Your task to perform on an android device: Open network settings Image 0: 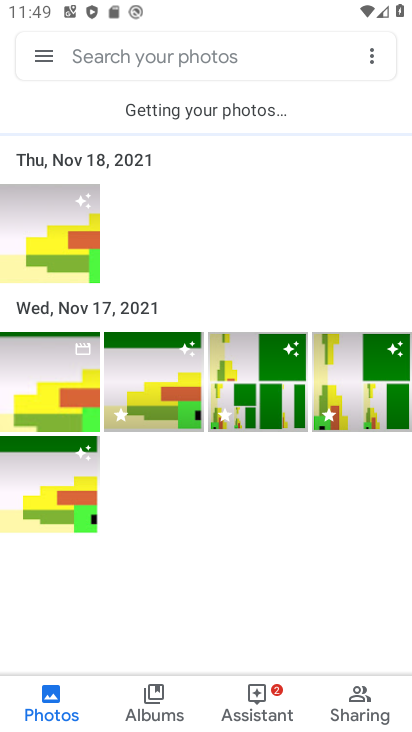
Step 0: press home button
Your task to perform on an android device: Open network settings Image 1: 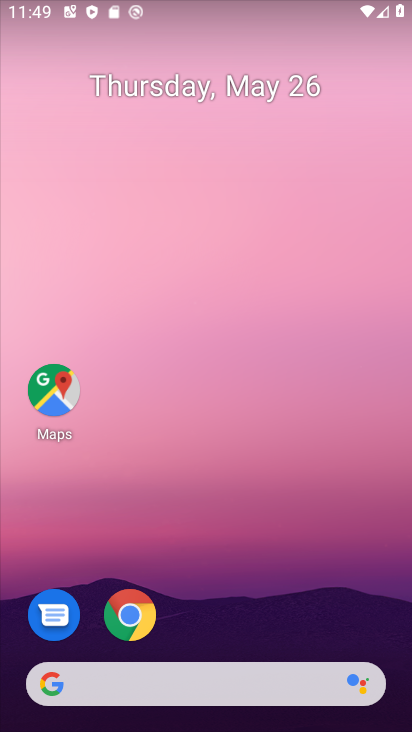
Step 1: drag from (230, 657) to (302, 174)
Your task to perform on an android device: Open network settings Image 2: 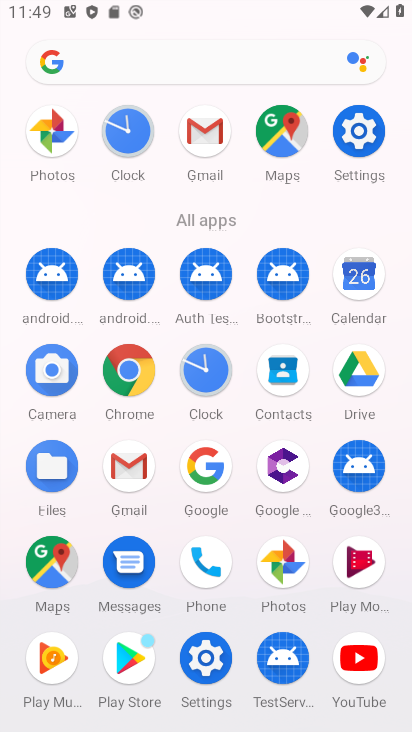
Step 2: click (215, 668)
Your task to perform on an android device: Open network settings Image 3: 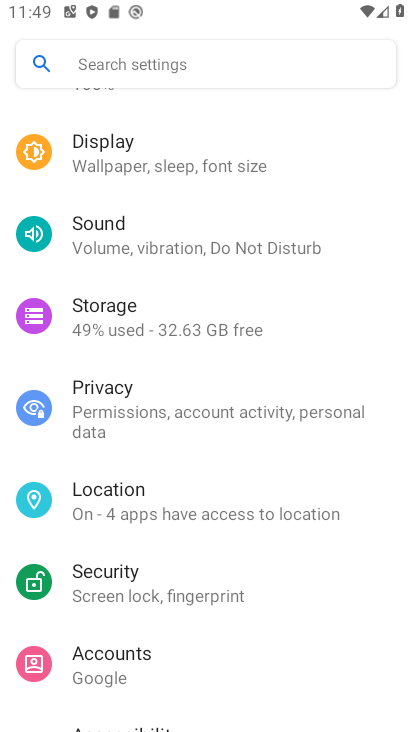
Step 3: drag from (223, 191) to (203, 588)
Your task to perform on an android device: Open network settings Image 4: 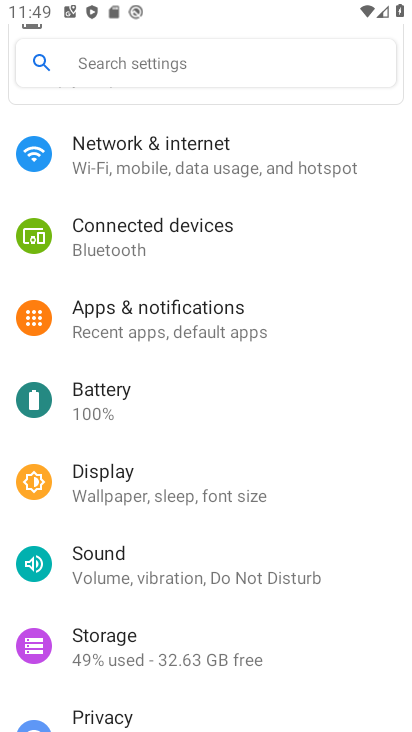
Step 4: click (239, 167)
Your task to perform on an android device: Open network settings Image 5: 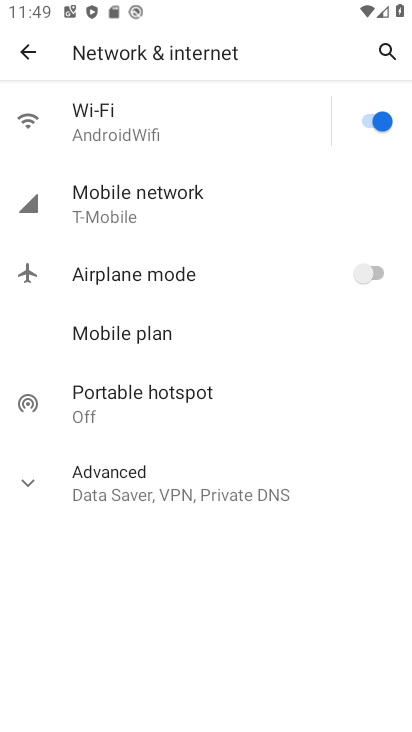
Step 5: click (185, 204)
Your task to perform on an android device: Open network settings Image 6: 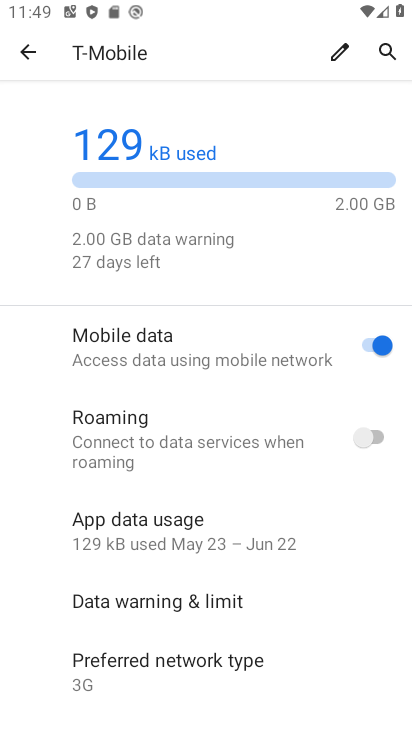
Step 6: task complete